Your task to perform on an android device: uninstall "DoorDash - Dasher" Image 0: 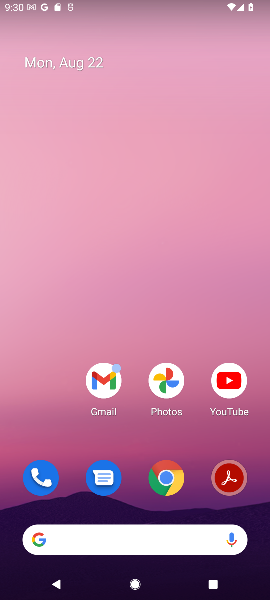
Step 0: drag from (129, 501) to (144, 117)
Your task to perform on an android device: uninstall "DoorDash - Dasher" Image 1: 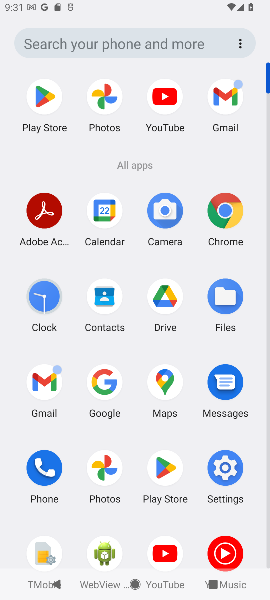
Step 1: click (56, 99)
Your task to perform on an android device: uninstall "DoorDash - Dasher" Image 2: 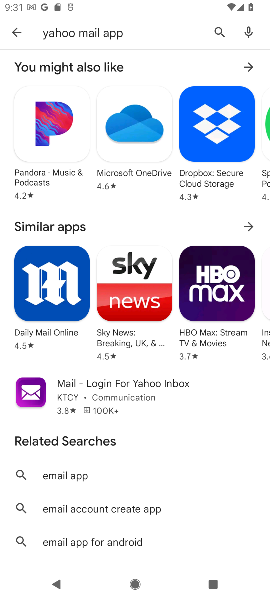
Step 2: click (220, 27)
Your task to perform on an android device: uninstall "DoorDash - Dasher" Image 3: 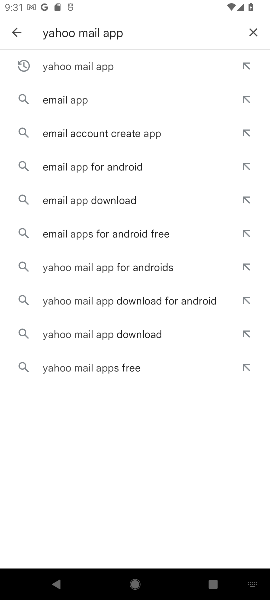
Step 3: click (249, 31)
Your task to perform on an android device: uninstall "DoorDash - Dasher" Image 4: 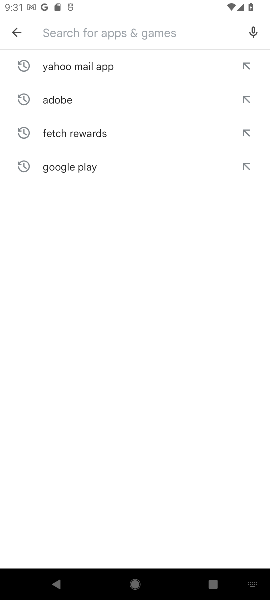
Step 4: type "door dash"
Your task to perform on an android device: uninstall "DoorDash - Dasher" Image 5: 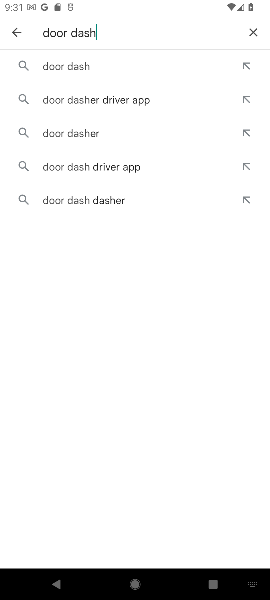
Step 5: click (140, 70)
Your task to perform on an android device: uninstall "DoorDash - Dasher" Image 6: 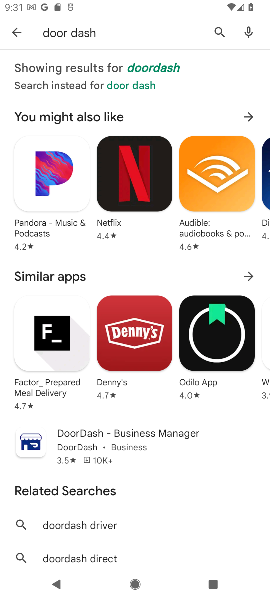
Step 6: click (153, 84)
Your task to perform on an android device: uninstall "DoorDash - Dasher" Image 7: 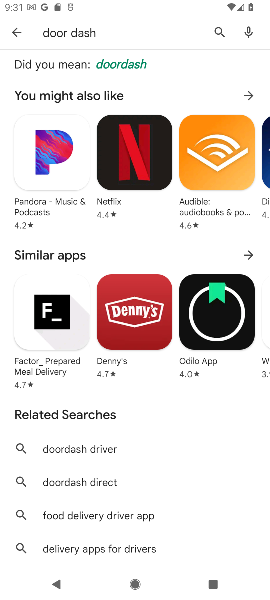
Step 7: task complete